Your task to perform on an android device: Add logitech g903 to the cart on target, then select checkout. Image 0: 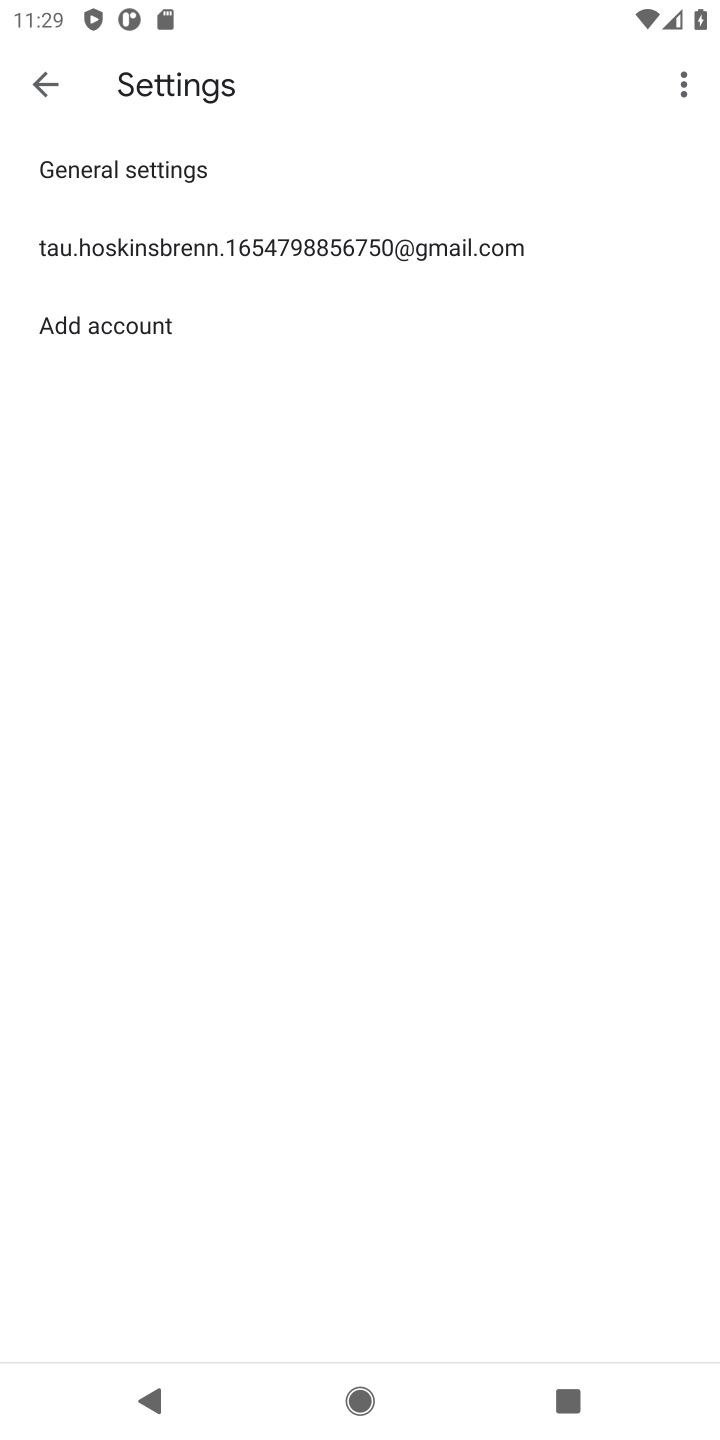
Step 0: press home button
Your task to perform on an android device: Add logitech g903 to the cart on target, then select checkout. Image 1: 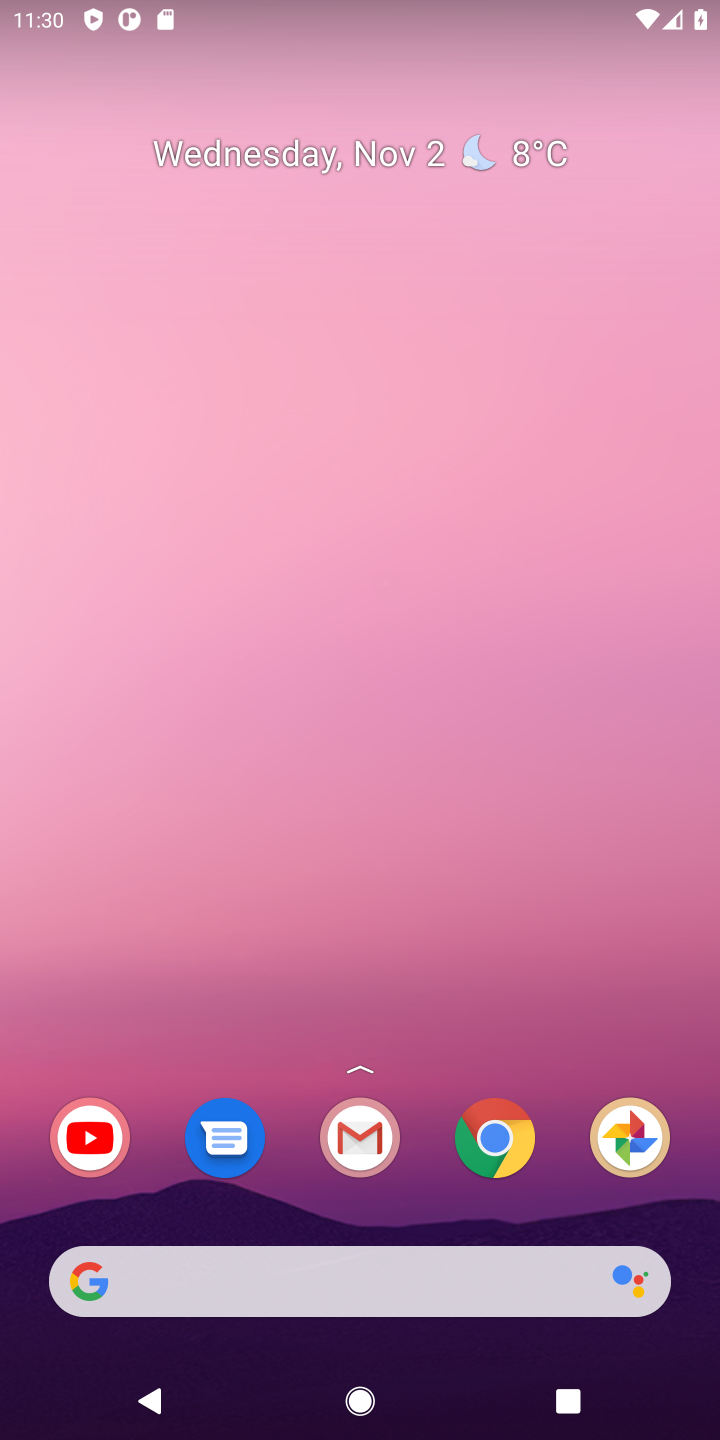
Step 1: click (505, 1151)
Your task to perform on an android device: Add logitech g903 to the cart on target, then select checkout. Image 2: 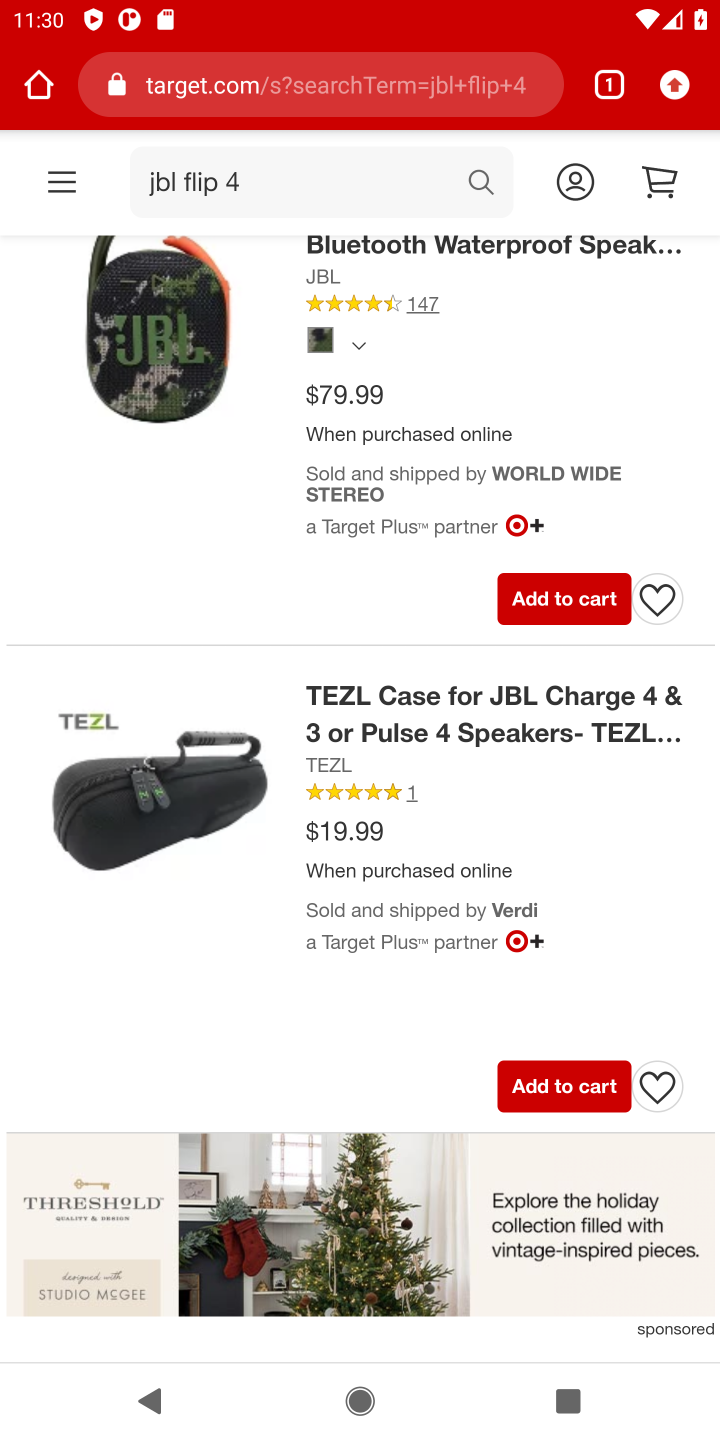
Step 2: click (387, 189)
Your task to perform on an android device: Add logitech g903 to the cart on target, then select checkout. Image 3: 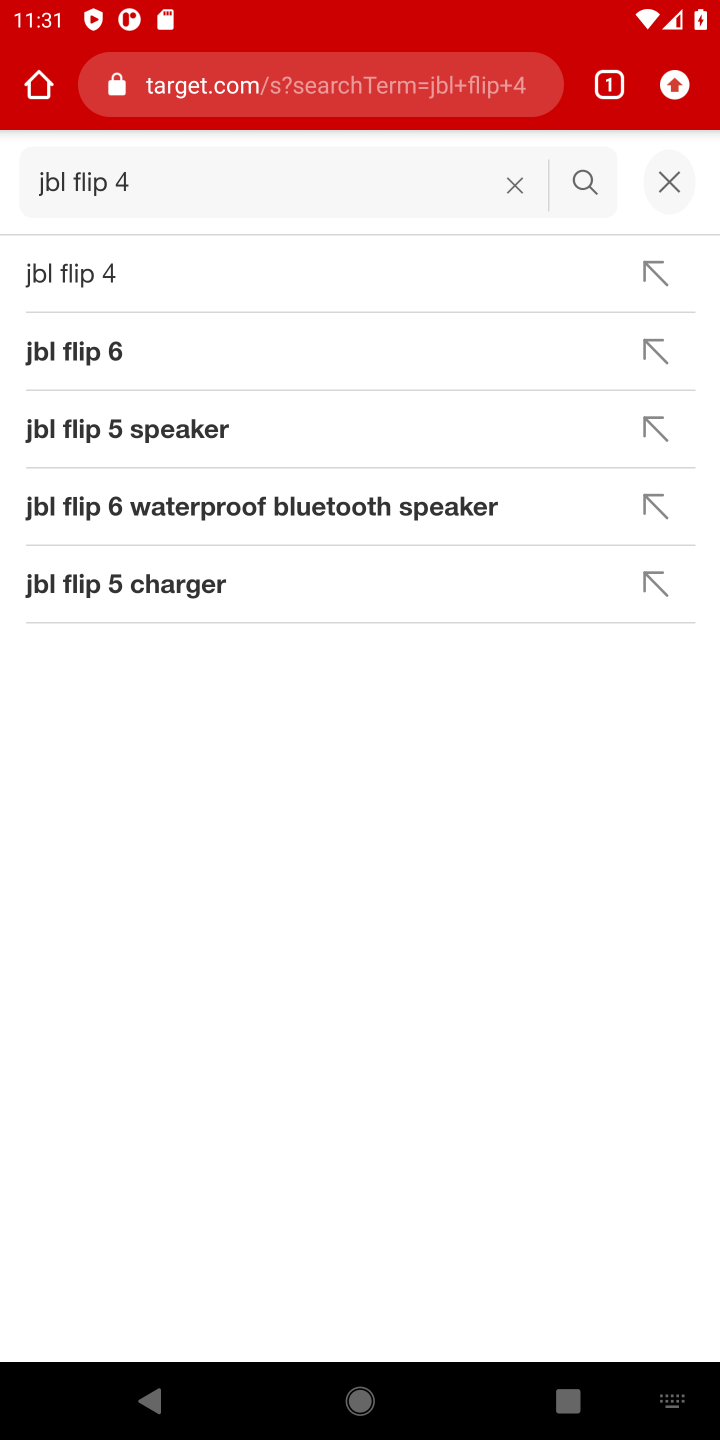
Step 3: click (514, 186)
Your task to perform on an android device: Add logitech g903 to the cart on target, then select checkout. Image 4: 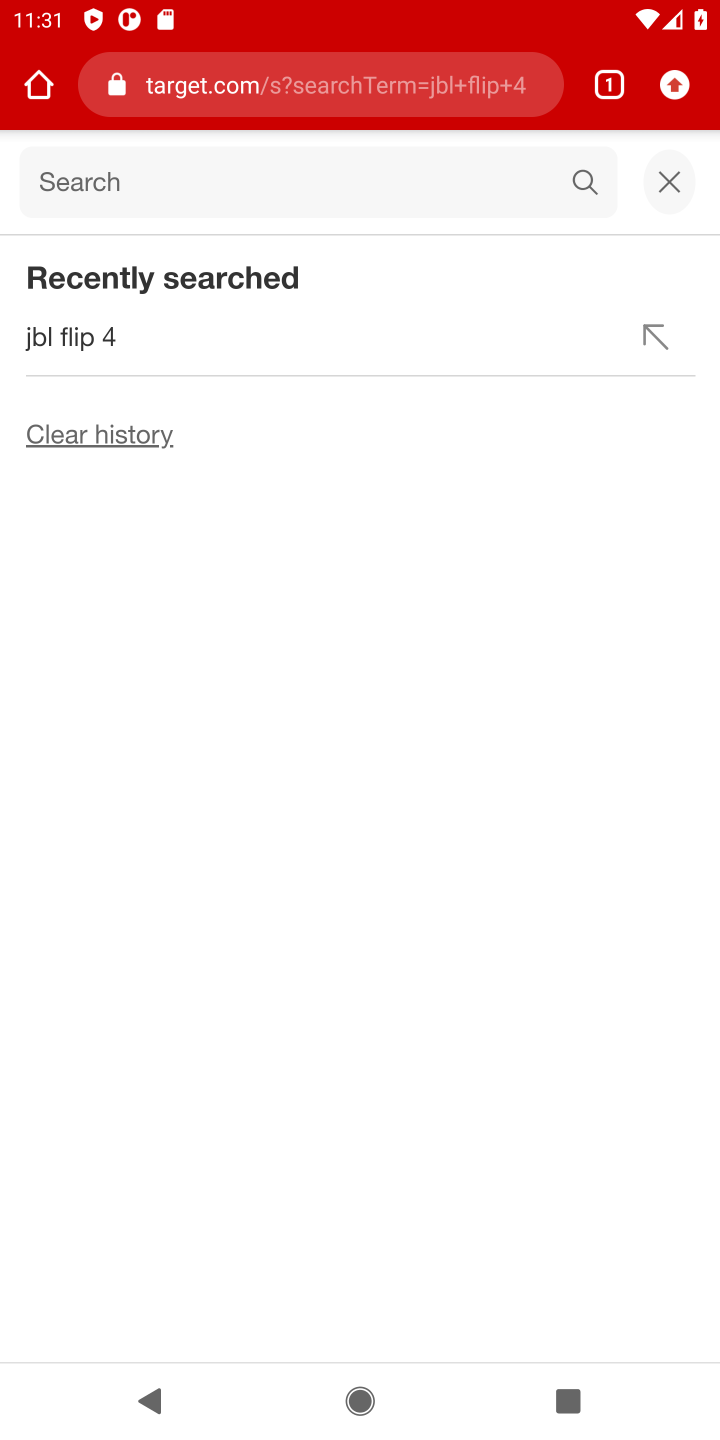
Step 4: type "logitech g903"
Your task to perform on an android device: Add logitech g903 to the cart on target, then select checkout. Image 5: 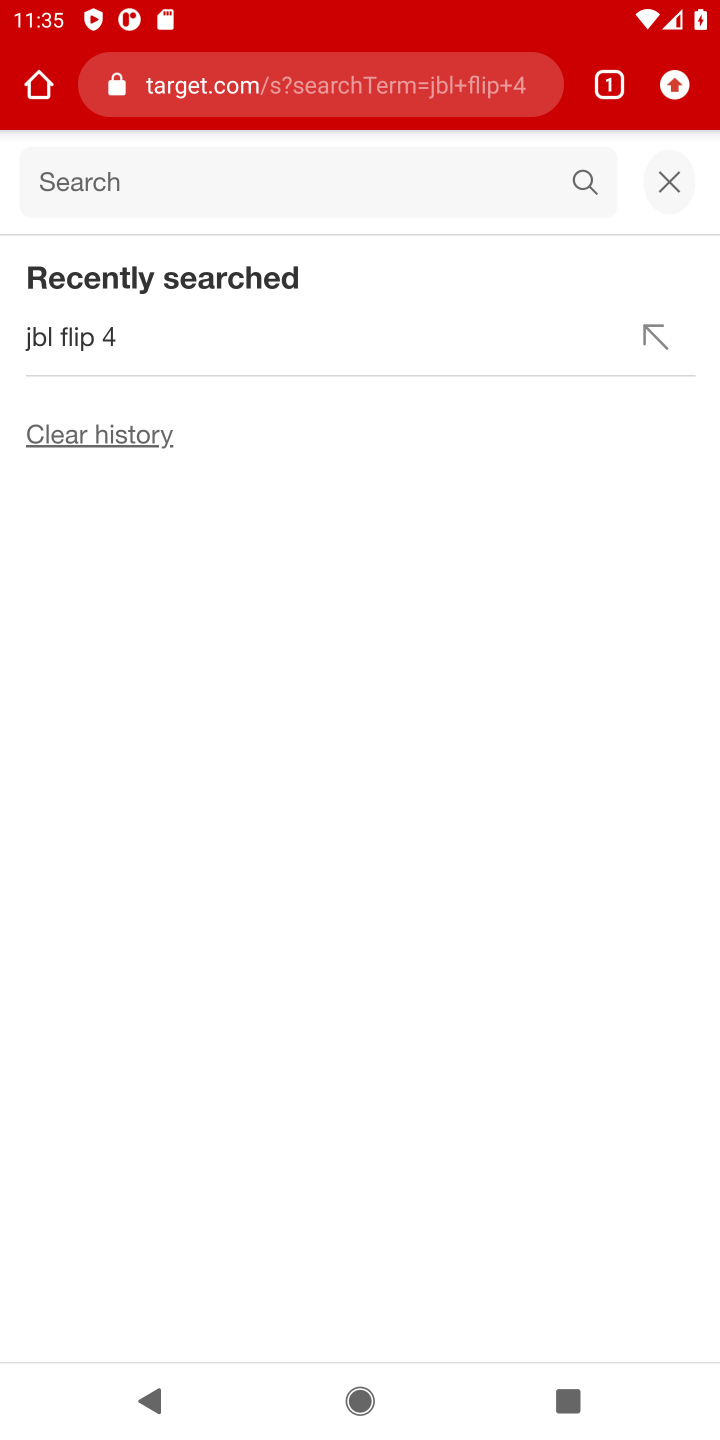
Step 5: task complete